Your task to perform on an android device: delete browsing data in the chrome app Image 0: 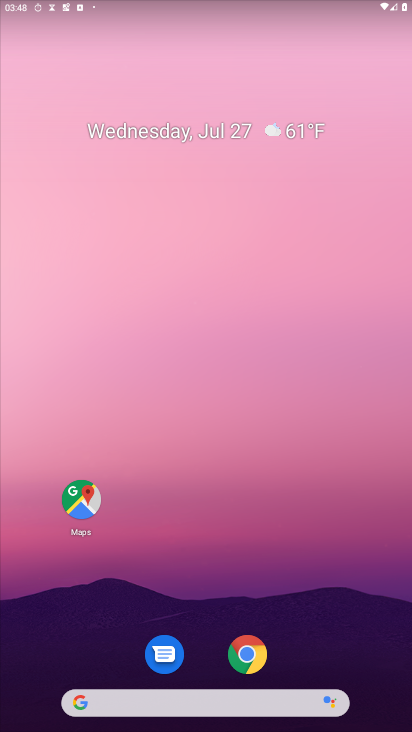
Step 0: drag from (190, 673) to (341, 12)
Your task to perform on an android device: delete browsing data in the chrome app Image 1: 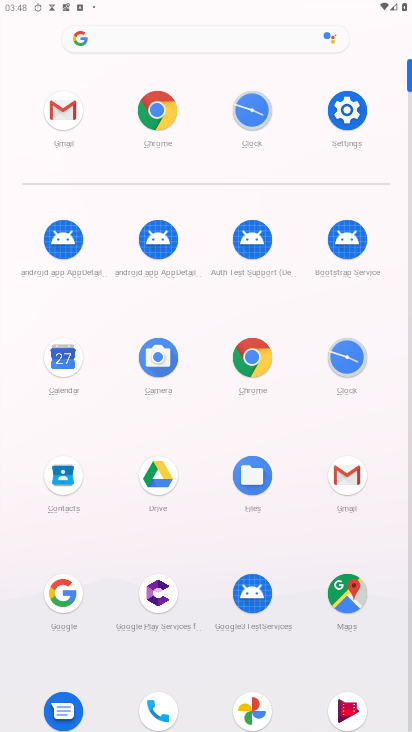
Step 1: click (249, 350)
Your task to perform on an android device: delete browsing data in the chrome app Image 2: 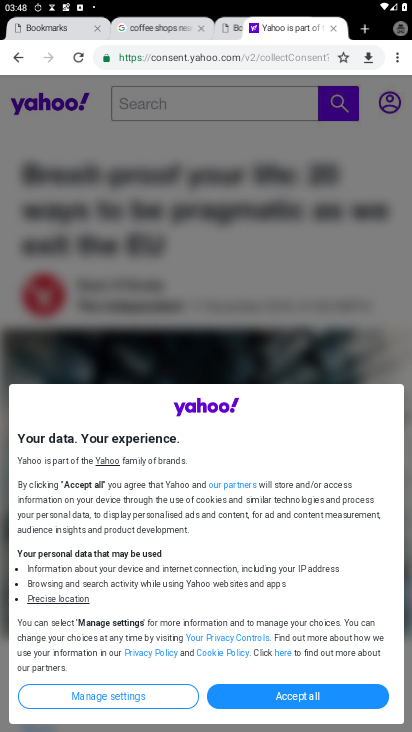
Step 2: click (397, 55)
Your task to perform on an android device: delete browsing data in the chrome app Image 3: 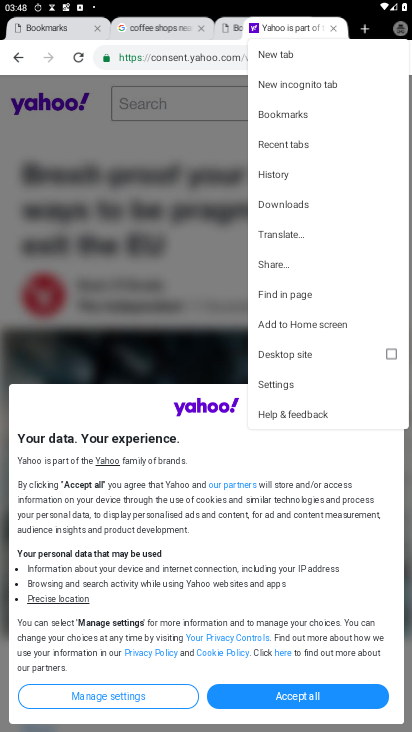
Step 3: click (300, 177)
Your task to perform on an android device: delete browsing data in the chrome app Image 4: 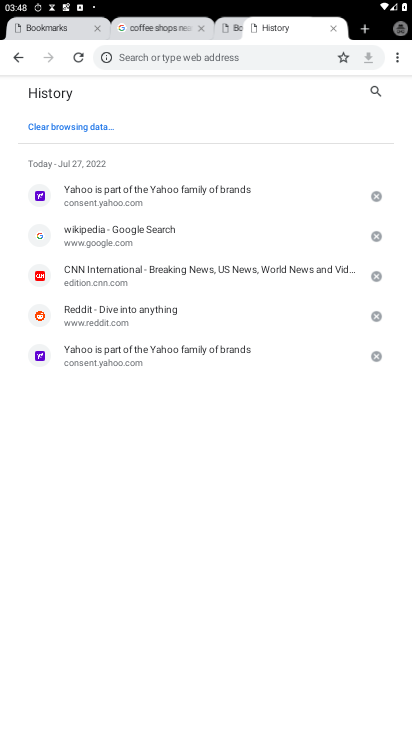
Step 4: click (88, 125)
Your task to perform on an android device: delete browsing data in the chrome app Image 5: 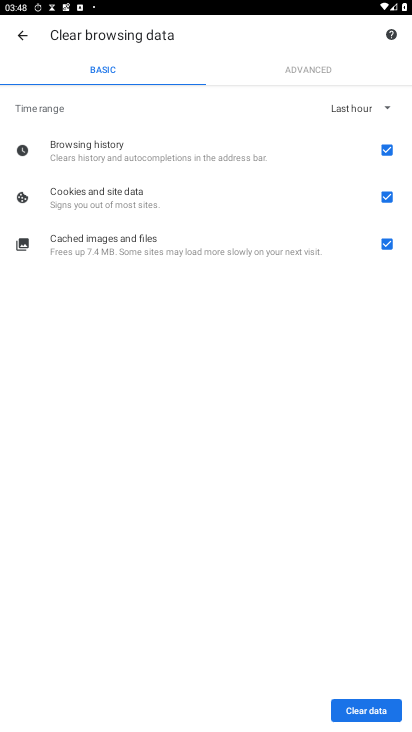
Step 5: click (361, 705)
Your task to perform on an android device: delete browsing data in the chrome app Image 6: 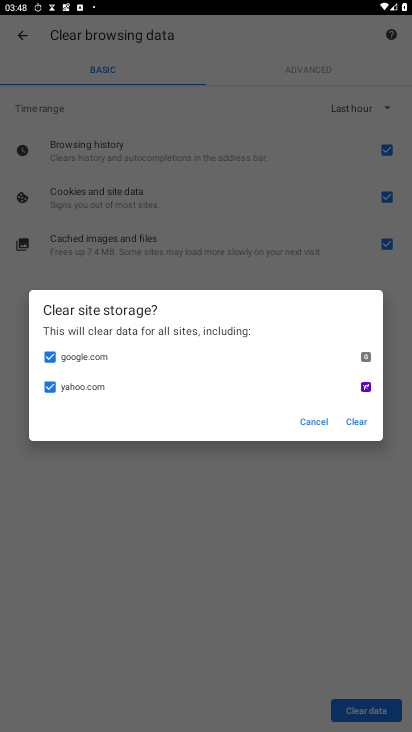
Step 6: task complete